Your task to perform on an android device: Go to accessibility settings Image 0: 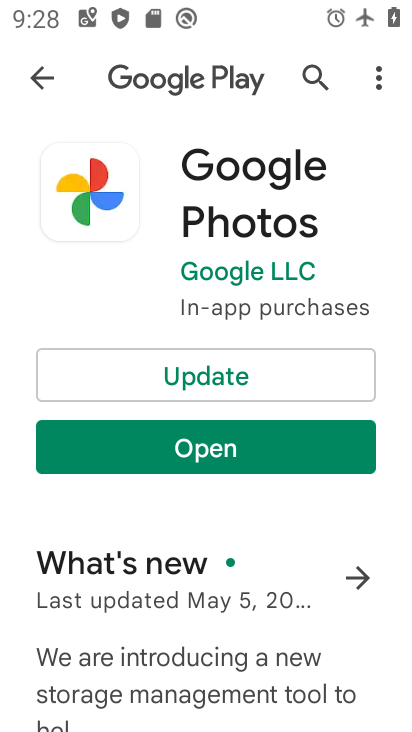
Step 0: press home button
Your task to perform on an android device: Go to accessibility settings Image 1: 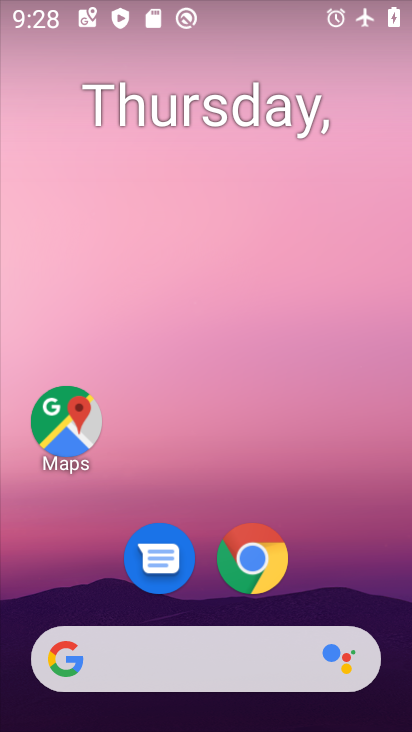
Step 1: drag from (403, 617) to (291, 203)
Your task to perform on an android device: Go to accessibility settings Image 2: 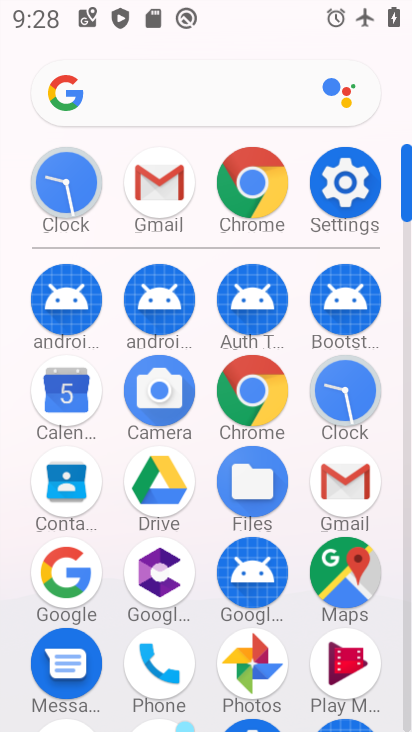
Step 2: click (407, 699)
Your task to perform on an android device: Go to accessibility settings Image 3: 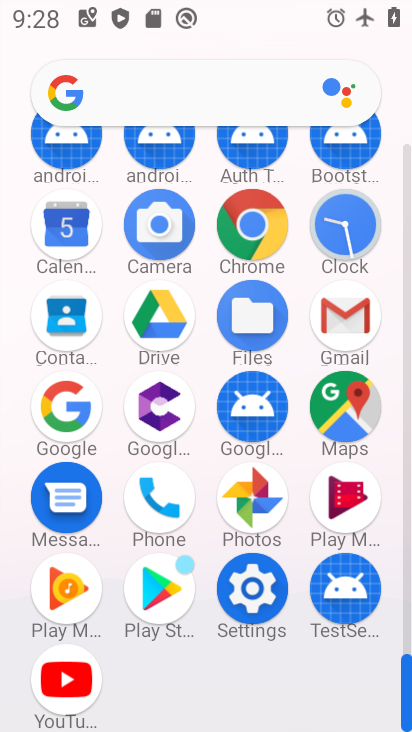
Step 3: click (252, 587)
Your task to perform on an android device: Go to accessibility settings Image 4: 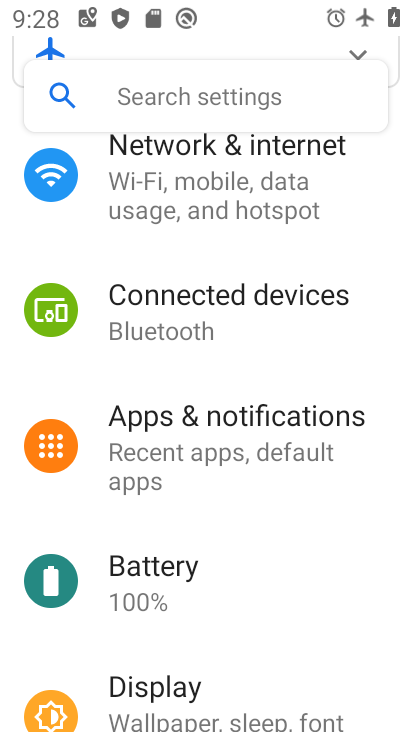
Step 4: drag from (191, 681) to (245, 169)
Your task to perform on an android device: Go to accessibility settings Image 5: 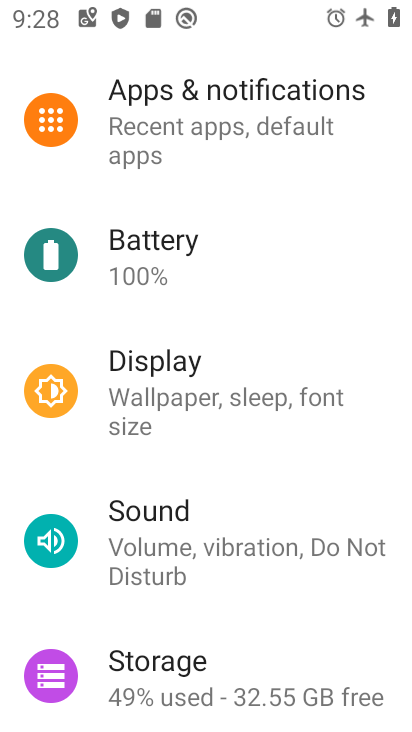
Step 5: drag from (280, 620) to (338, 93)
Your task to perform on an android device: Go to accessibility settings Image 6: 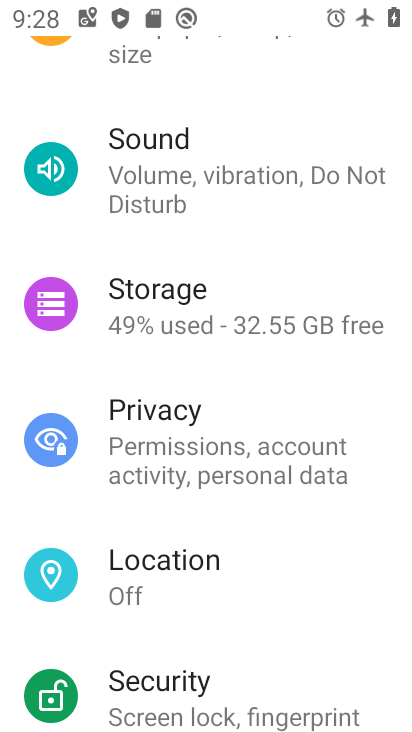
Step 6: drag from (249, 628) to (248, 124)
Your task to perform on an android device: Go to accessibility settings Image 7: 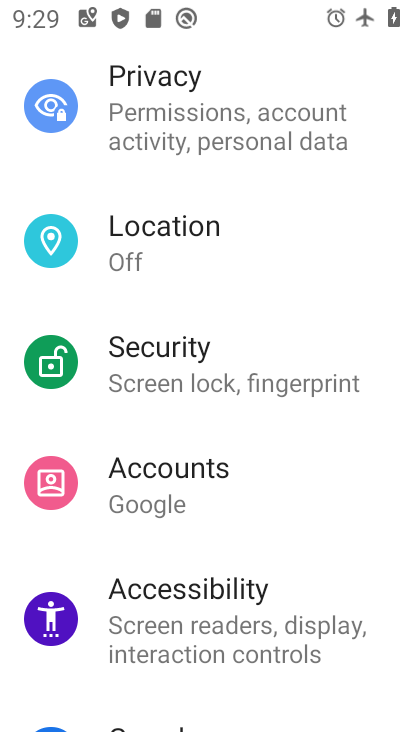
Step 7: click (194, 637)
Your task to perform on an android device: Go to accessibility settings Image 8: 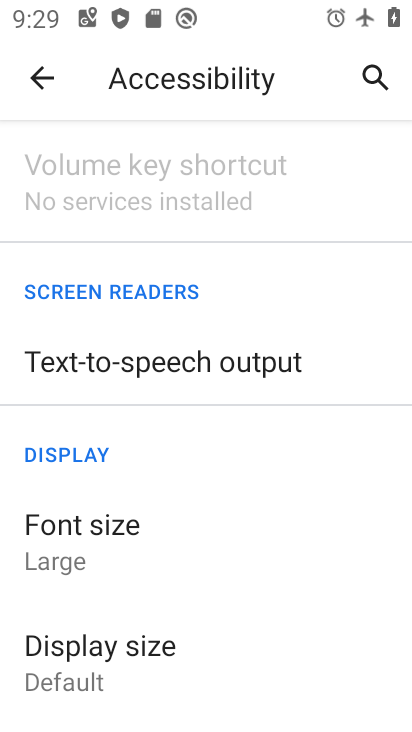
Step 8: task complete